Your task to perform on an android device: Add "razer thresher" to the cart on newegg Image 0: 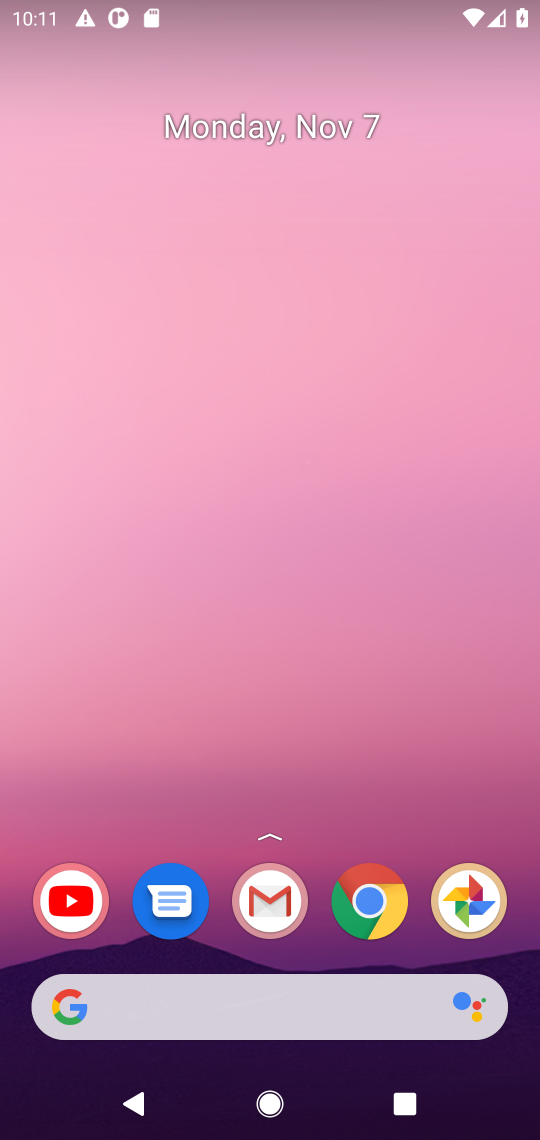
Step 0: click (374, 888)
Your task to perform on an android device: Add "razer thresher" to the cart on newegg Image 1: 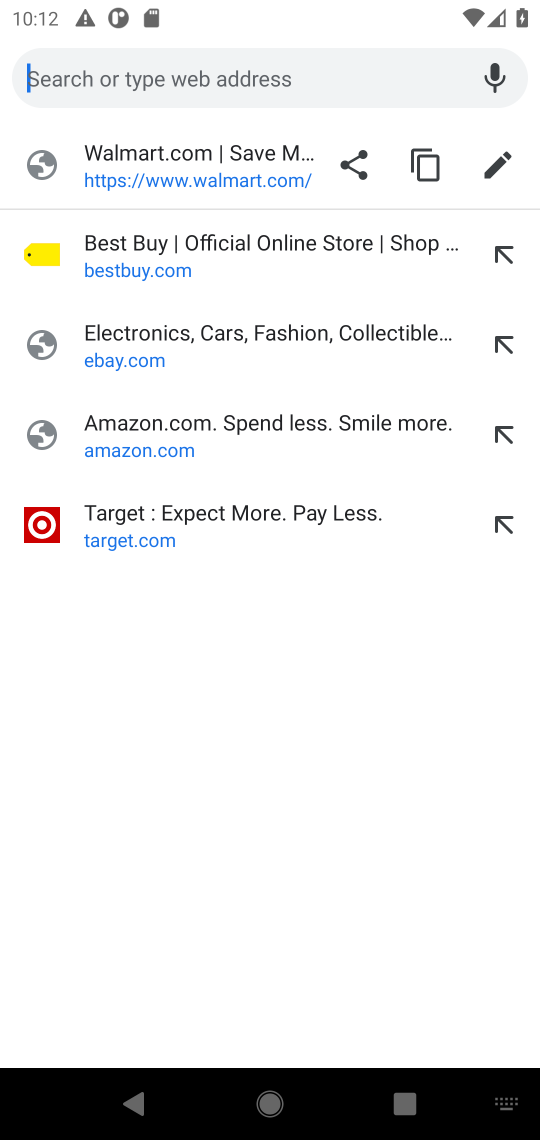
Step 1: type "newegg"
Your task to perform on an android device: Add "razer thresher" to the cart on newegg Image 2: 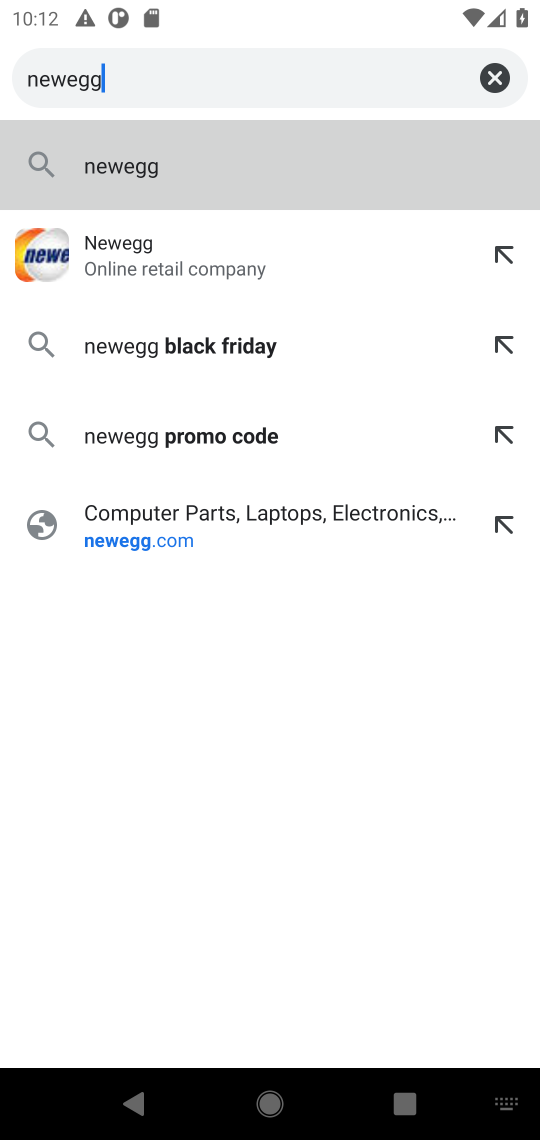
Step 2: click (258, 506)
Your task to perform on an android device: Add "razer thresher" to the cart on newegg Image 3: 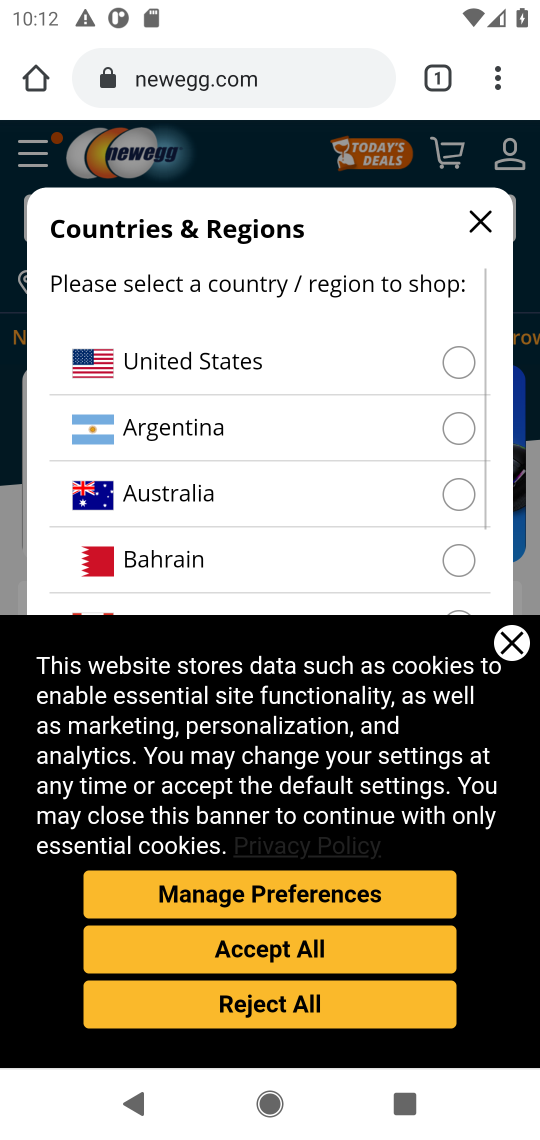
Step 3: click (263, 372)
Your task to perform on an android device: Add "razer thresher" to the cart on newegg Image 4: 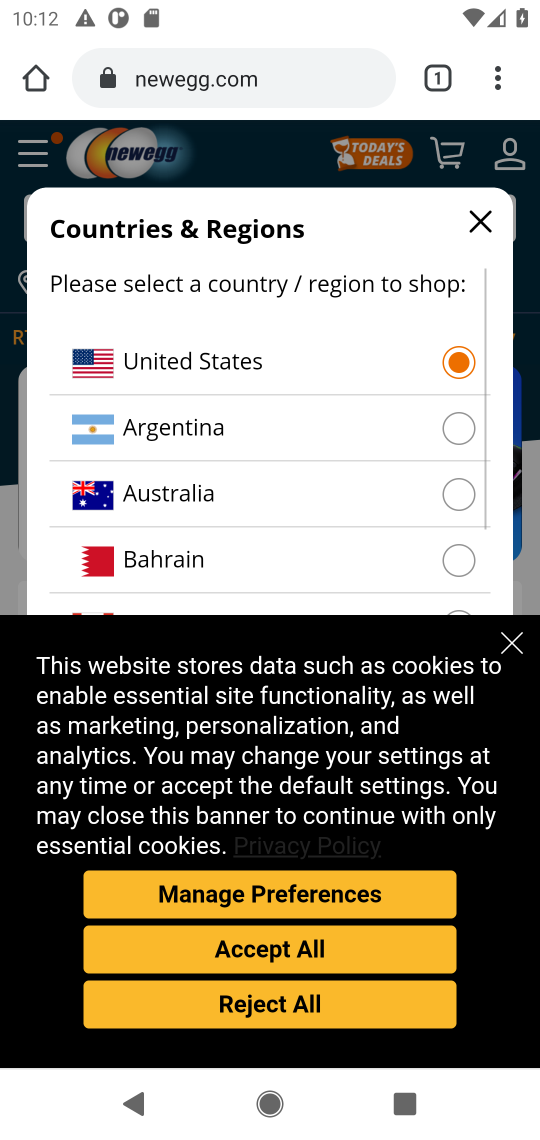
Step 4: click (315, 957)
Your task to perform on an android device: Add "razer thresher" to the cart on newegg Image 5: 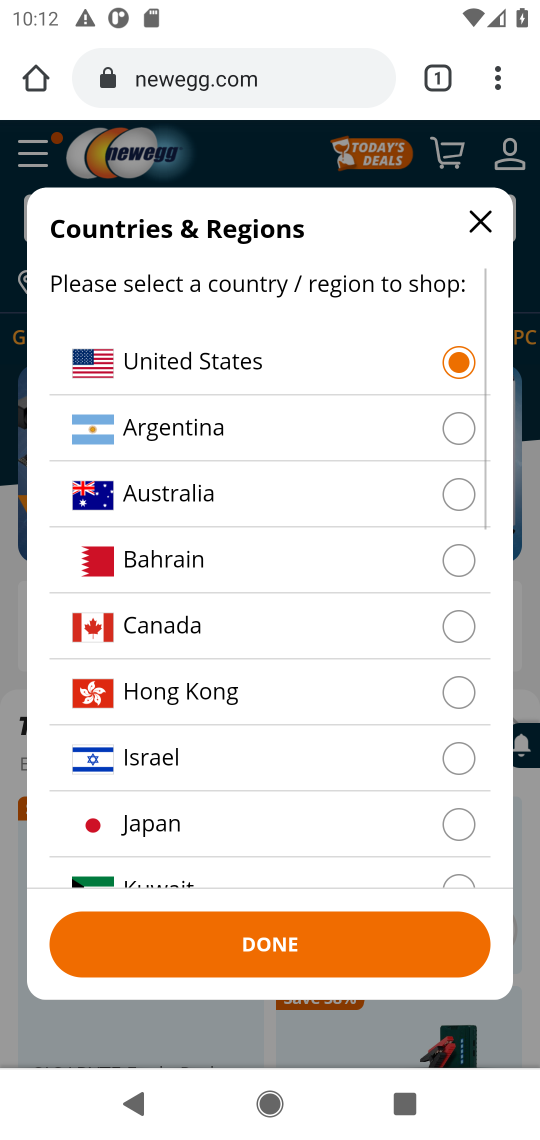
Step 5: click (342, 964)
Your task to perform on an android device: Add "razer thresher" to the cart on newegg Image 6: 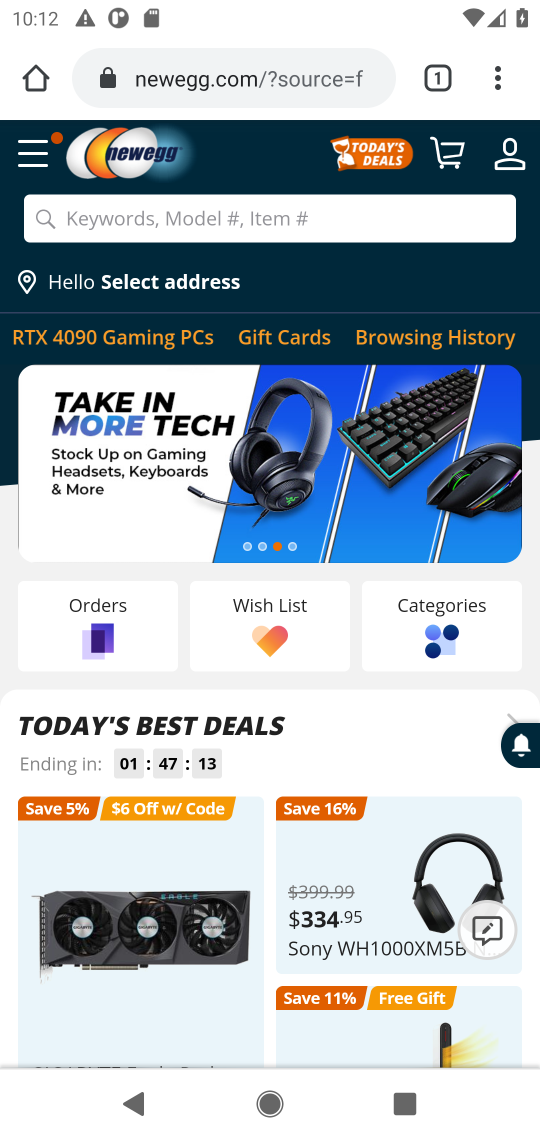
Step 6: click (215, 223)
Your task to perform on an android device: Add "razer thresher" to the cart on newegg Image 7: 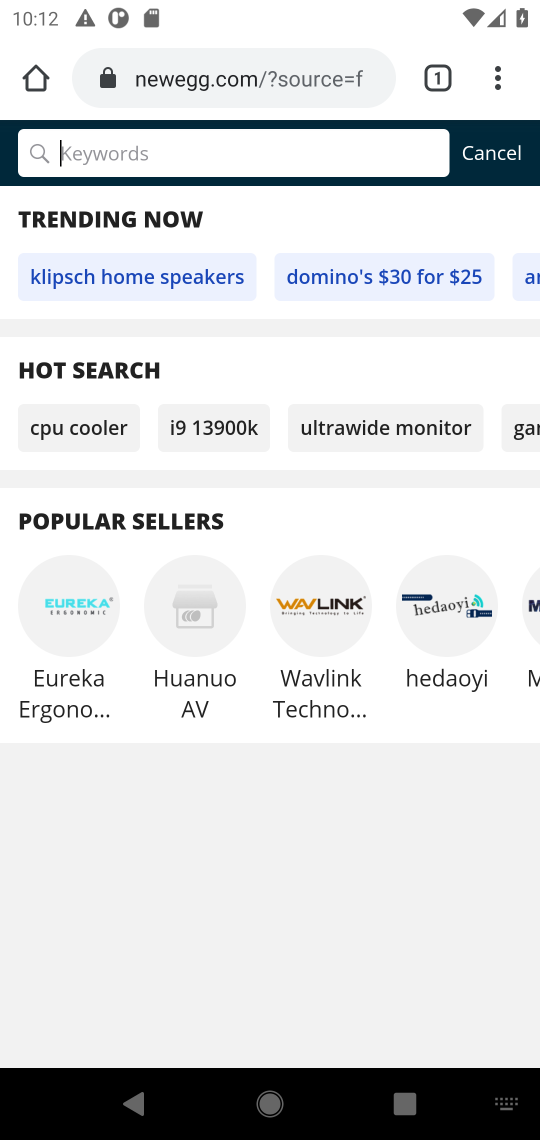
Step 7: type "razer thresher"
Your task to perform on an android device: Add "razer thresher" to the cart on newegg Image 8: 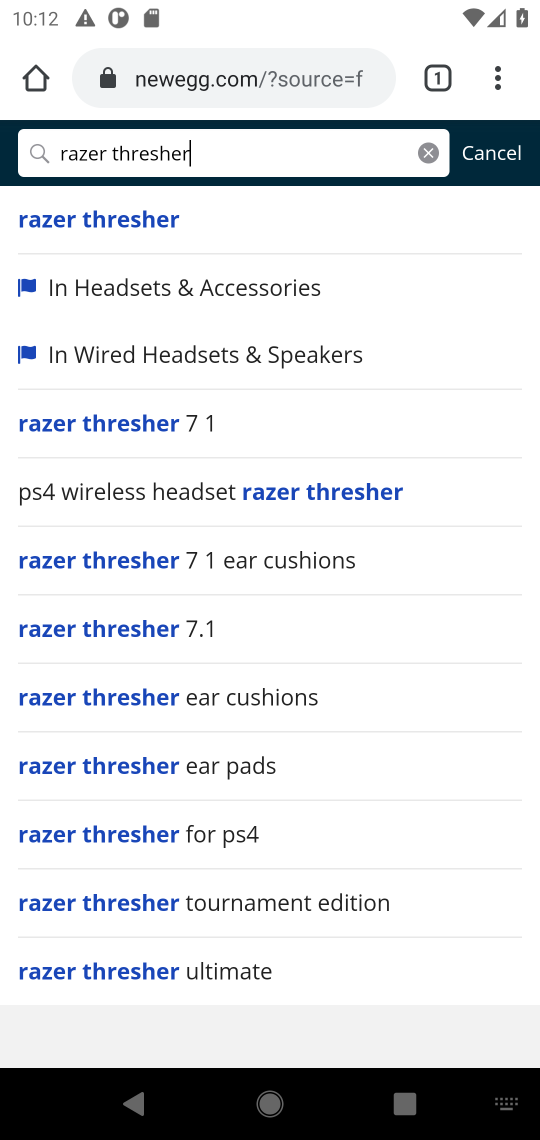
Step 8: click (201, 227)
Your task to perform on an android device: Add "razer thresher" to the cart on newegg Image 9: 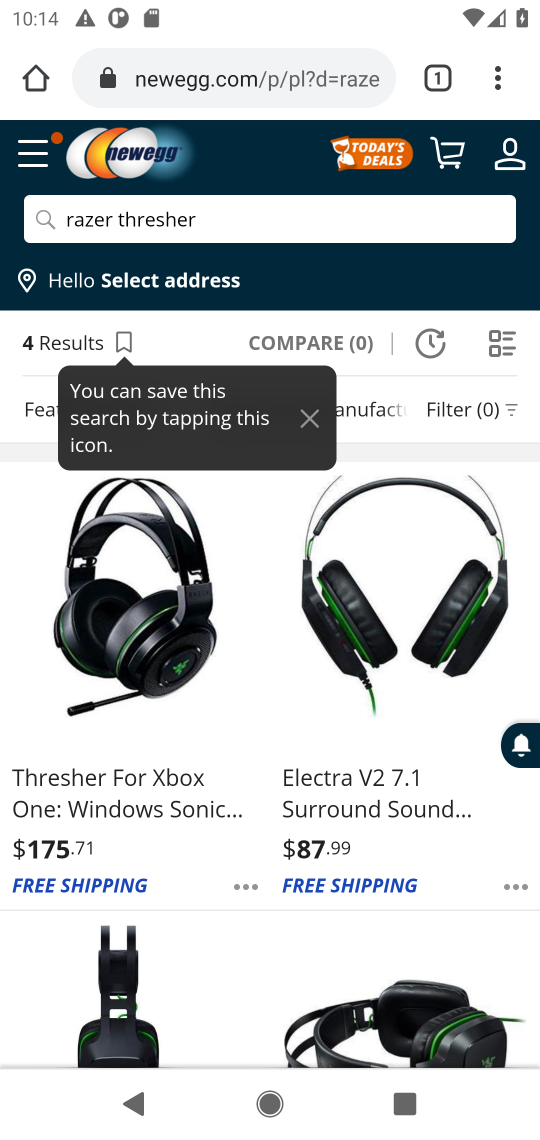
Step 9: task complete